Your task to perform on an android device: change text size in settings app Image 0: 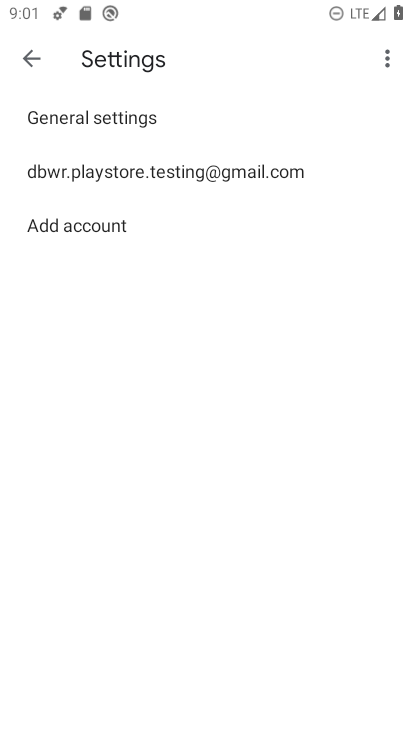
Step 0: press home button
Your task to perform on an android device: change text size in settings app Image 1: 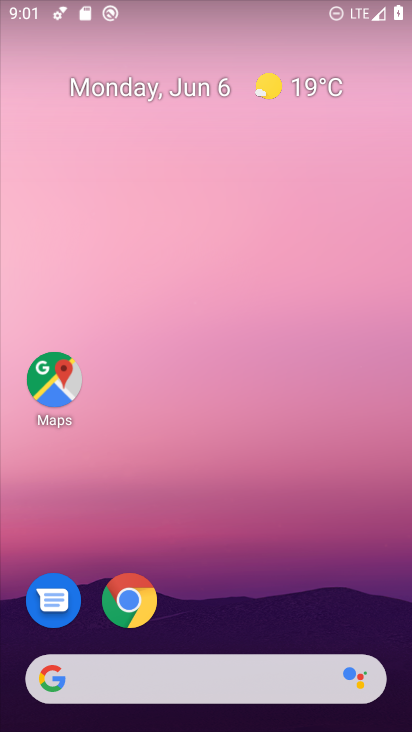
Step 1: drag from (291, 586) to (222, 29)
Your task to perform on an android device: change text size in settings app Image 2: 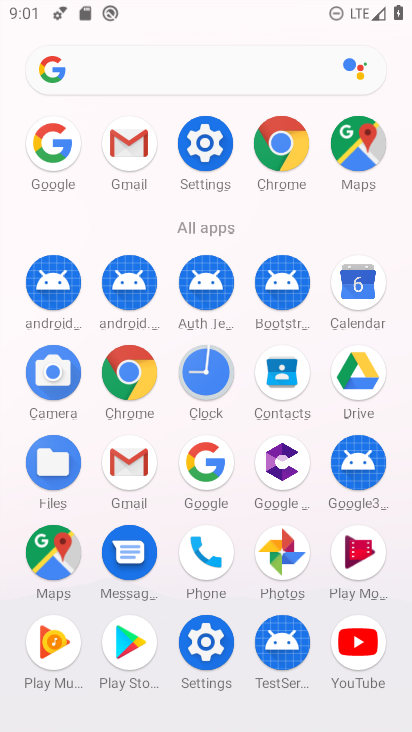
Step 2: click (197, 637)
Your task to perform on an android device: change text size in settings app Image 3: 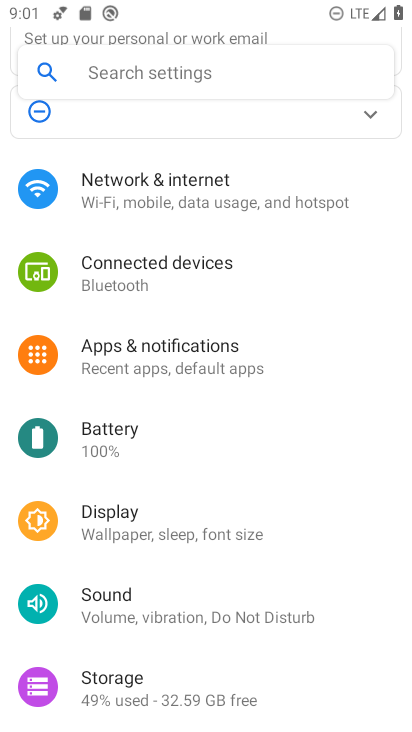
Step 3: click (176, 534)
Your task to perform on an android device: change text size in settings app Image 4: 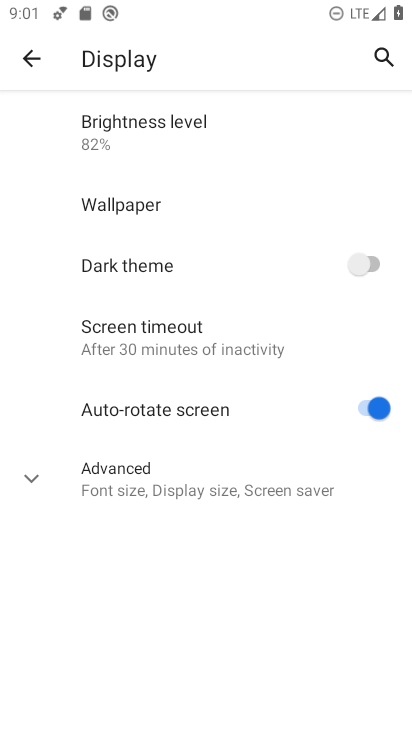
Step 4: click (170, 484)
Your task to perform on an android device: change text size in settings app Image 5: 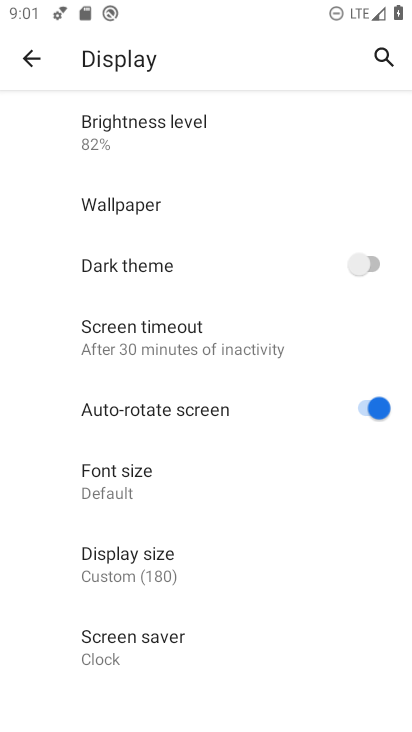
Step 5: click (170, 481)
Your task to perform on an android device: change text size in settings app Image 6: 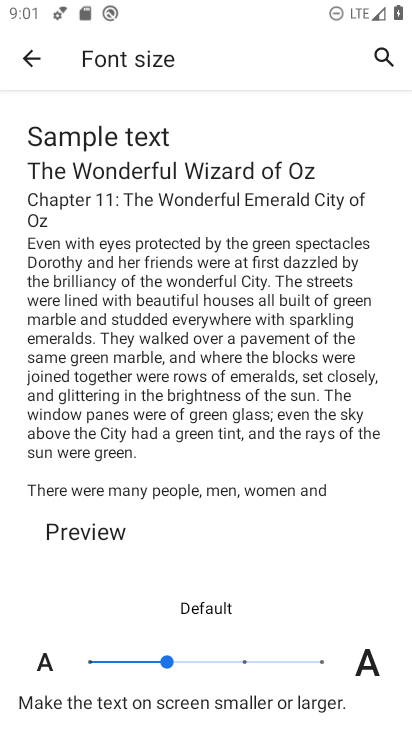
Step 6: click (244, 663)
Your task to perform on an android device: change text size in settings app Image 7: 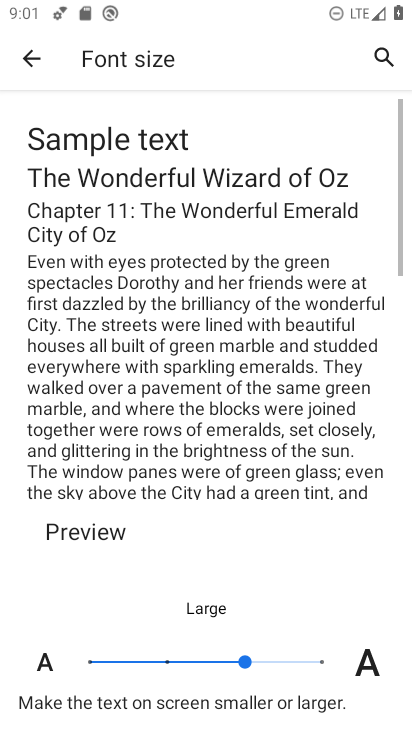
Step 7: task complete